Your task to perform on an android device: turn off wifi Image 0: 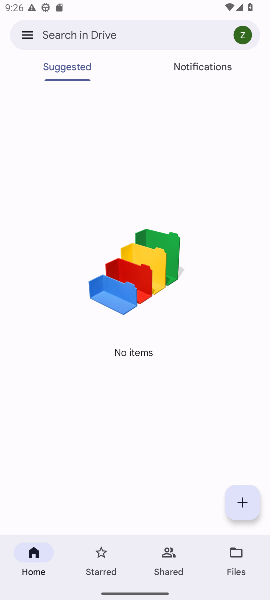
Step 0: press home button
Your task to perform on an android device: turn off wifi Image 1: 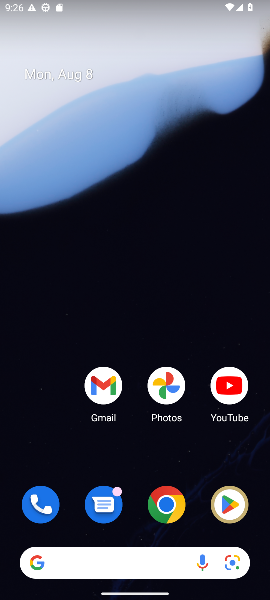
Step 1: drag from (136, 444) to (147, 153)
Your task to perform on an android device: turn off wifi Image 2: 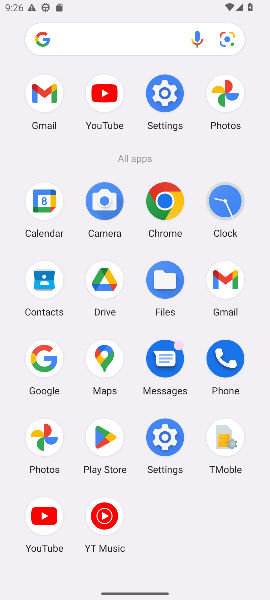
Step 2: click (164, 102)
Your task to perform on an android device: turn off wifi Image 3: 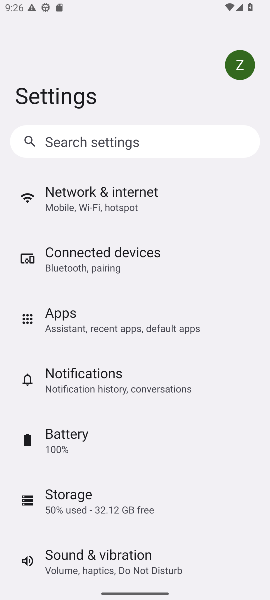
Step 3: click (108, 205)
Your task to perform on an android device: turn off wifi Image 4: 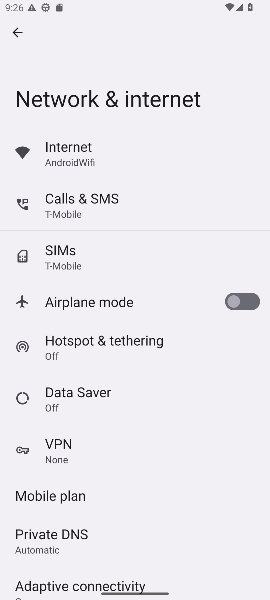
Step 4: click (96, 167)
Your task to perform on an android device: turn off wifi Image 5: 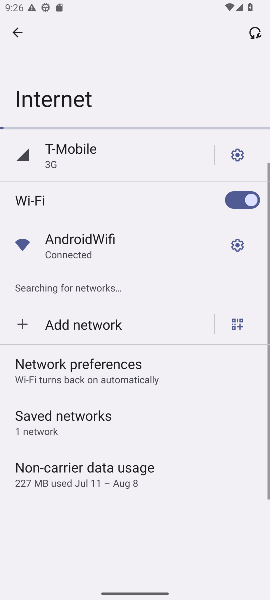
Step 5: click (225, 189)
Your task to perform on an android device: turn off wifi Image 6: 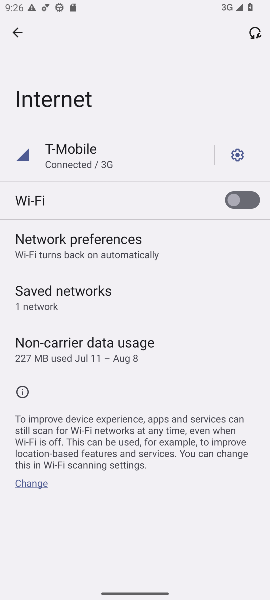
Step 6: task complete